Your task to perform on an android device: Open calendar and show me the second week of next month Image 0: 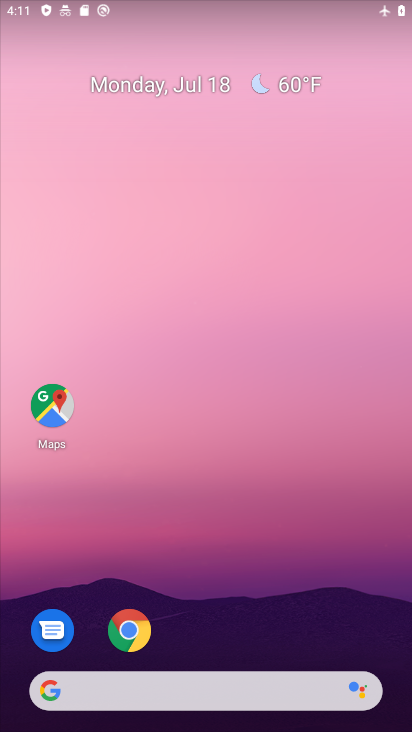
Step 0: drag from (120, 323) to (120, 41)
Your task to perform on an android device: Open calendar and show me the second week of next month Image 1: 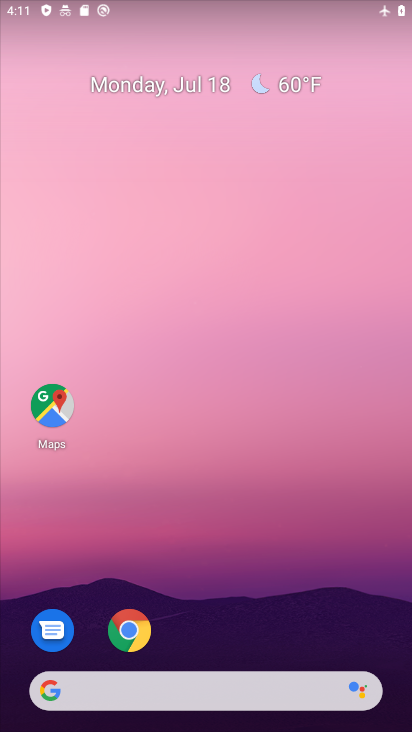
Step 1: drag from (264, 660) to (130, 73)
Your task to perform on an android device: Open calendar and show me the second week of next month Image 2: 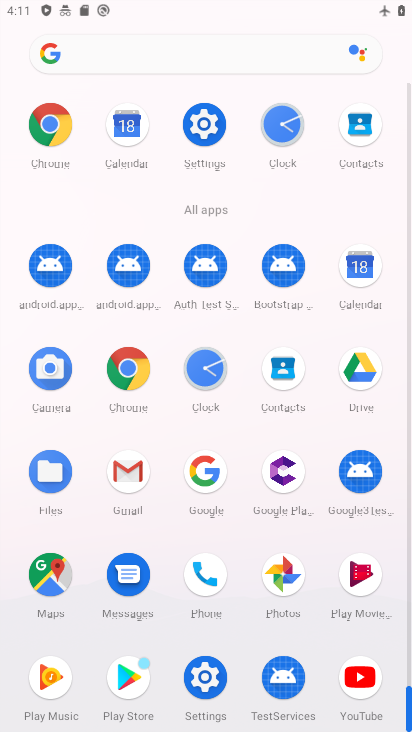
Step 2: click (349, 273)
Your task to perform on an android device: Open calendar and show me the second week of next month Image 3: 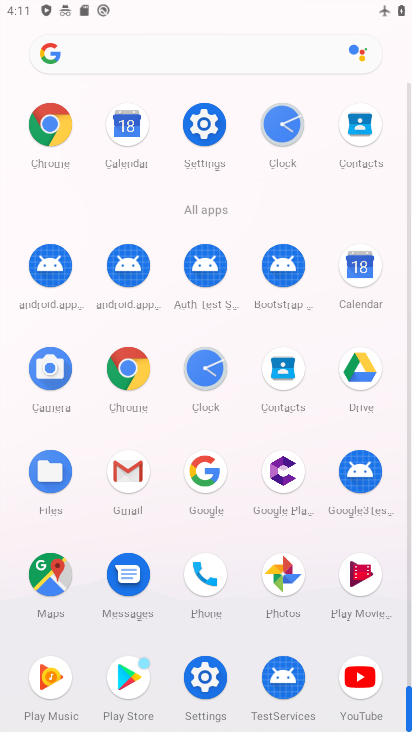
Step 3: click (355, 279)
Your task to perform on an android device: Open calendar and show me the second week of next month Image 4: 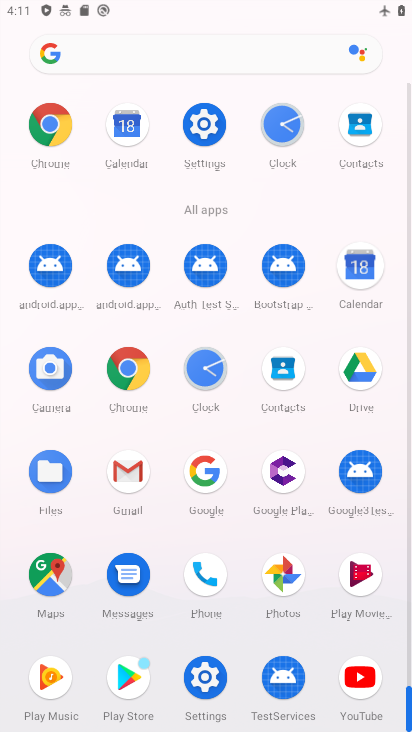
Step 4: click (360, 280)
Your task to perform on an android device: Open calendar and show me the second week of next month Image 5: 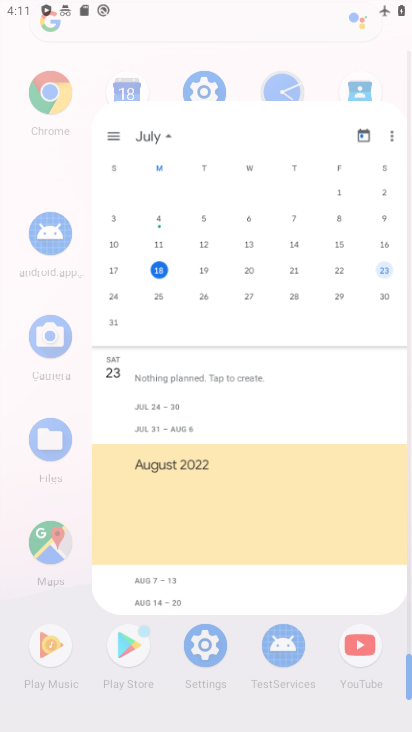
Step 5: click (357, 275)
Your task to perform on an android device: Open calendar and show me the second week of next month Image 6: 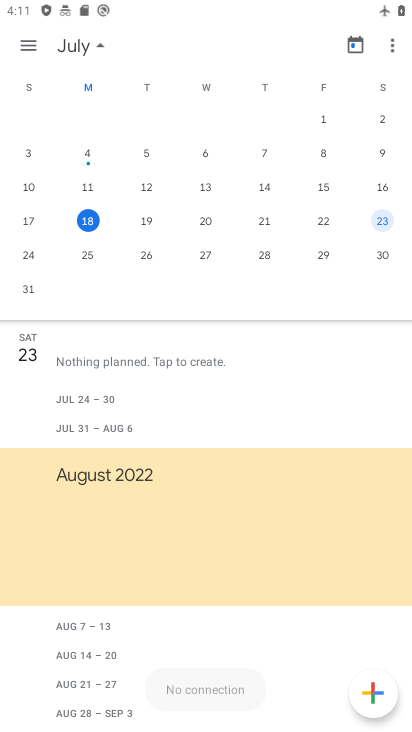
Step 6: click (354, 268)
Your task to perform on an android device: Open calendar and show me the second week of next month Image 7: 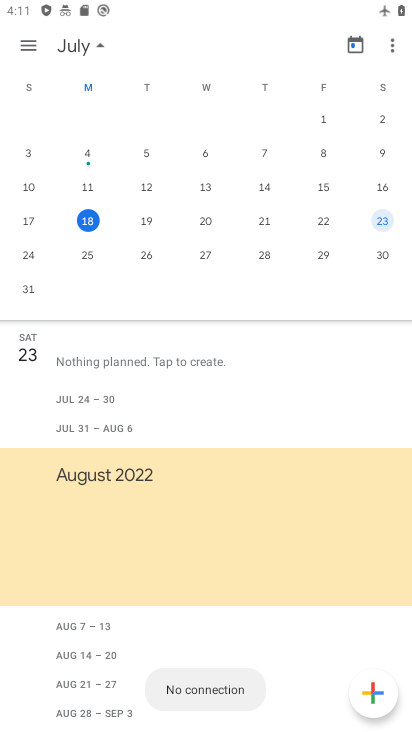
Step 7: drag from (318, 182) to (0, 257)
Your task to perform on an android device: Open calendar and show me the second week of next month Image 8: 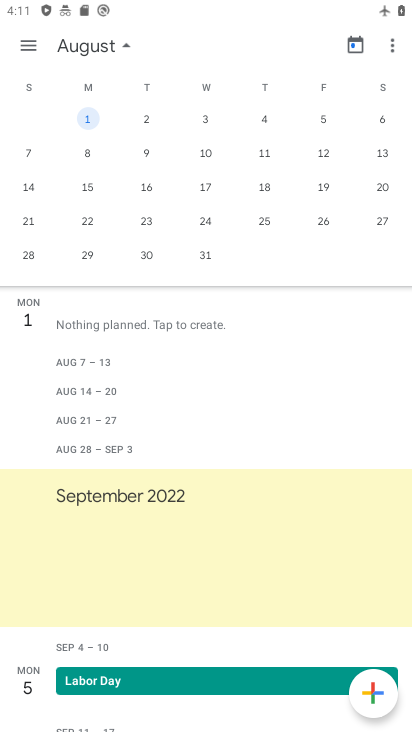
Step 8: drag from (202, 185) to (0, 186)
Your task to perform on an android device: Open calendar and show me the second week of next month Image 9: 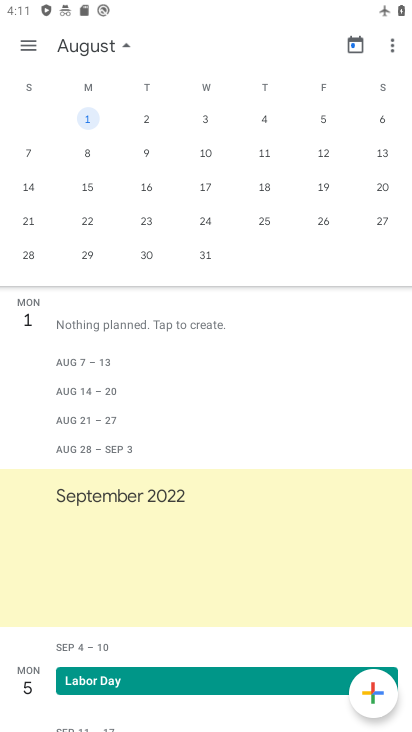
Step 9: click (146, 152)
Your task to perform on an android device: Open calendar and show me the second week of next month Image 10: 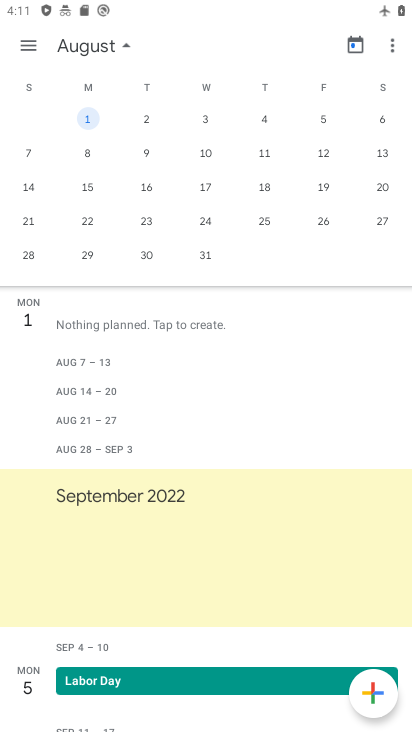
Step 10: click (142, 153)
Your task to perform on an android device: Open calendar and show me the second week of next month Image 11: 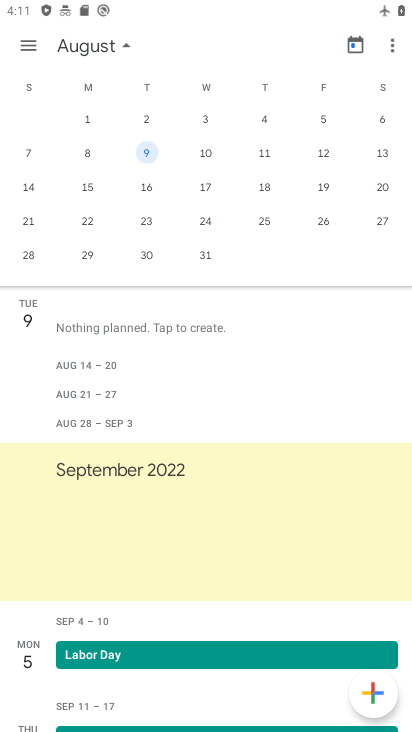
Step 11: task complete